Your task to perform on an android device: Check the news Image 0: 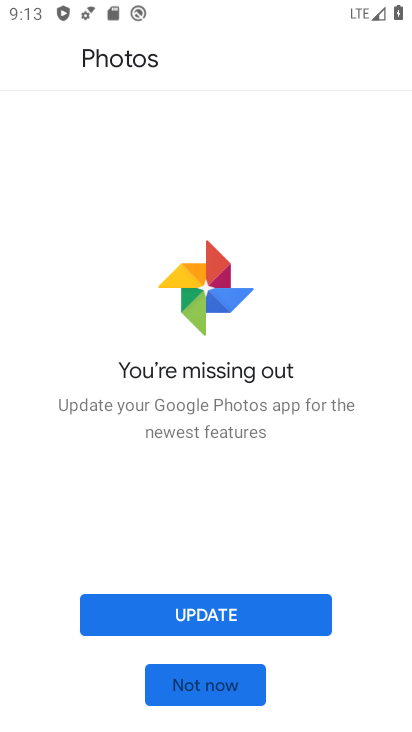
Step 0: press home button
Your task to perform on an android device: Check the news Image 1: 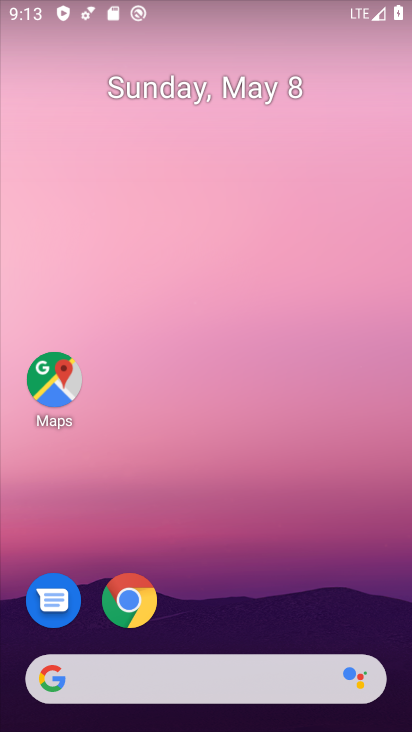
Step 1: task complete